Your task to perform on an android device: Go to accessibility settings Image 0: 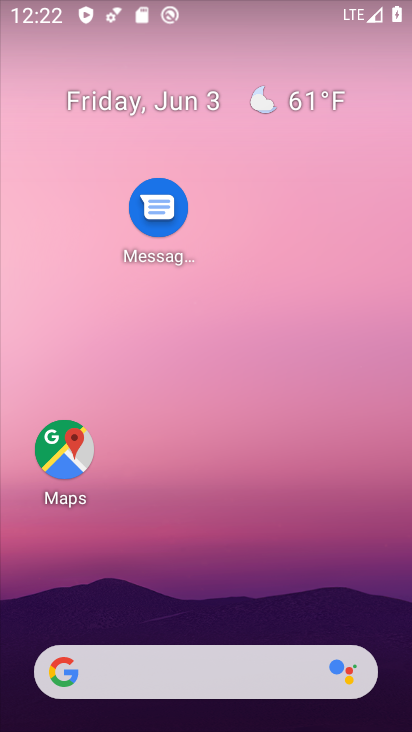
Step 0: drag from (205, 636) to (153, 13)
Your task to perform on an android device: Go to accessibility settings Image 1: 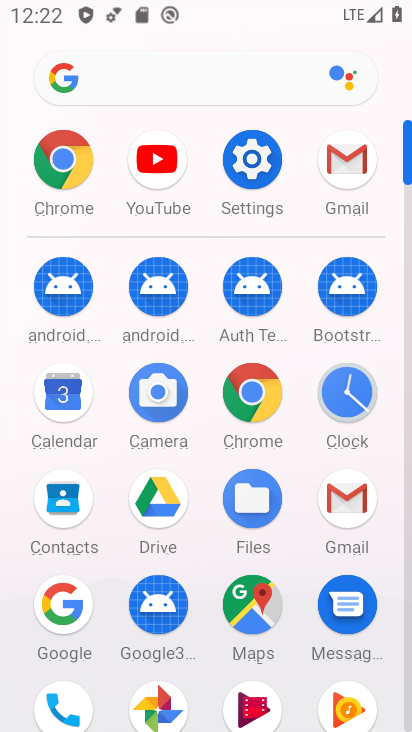
Step 1: click (253, 173)
Your task to perform on an android device: Go to accessibility settings Image 2: 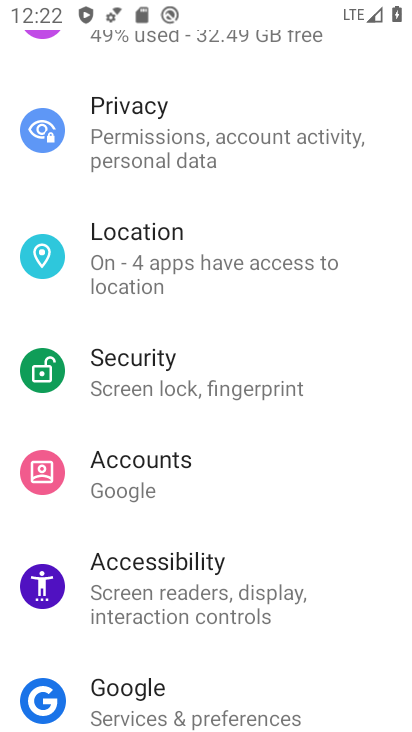
Step 2: click (207, 567)
Your task to perform on an android device: Go to accessibility settings Image 3: 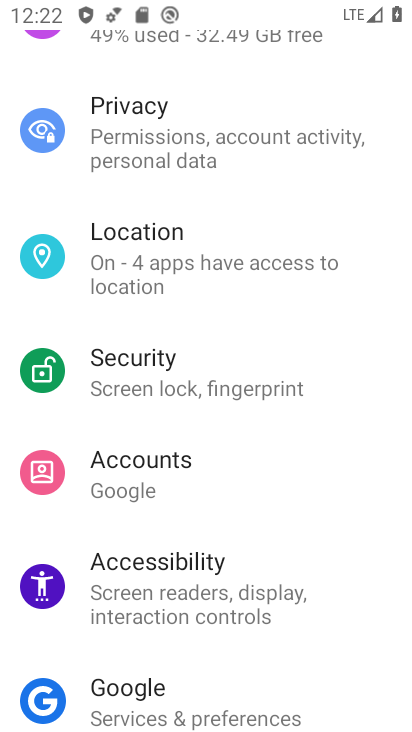
Step 3: task complete